Your task to perform on an android device: toggle priority inbox in the gmail app Image 0: 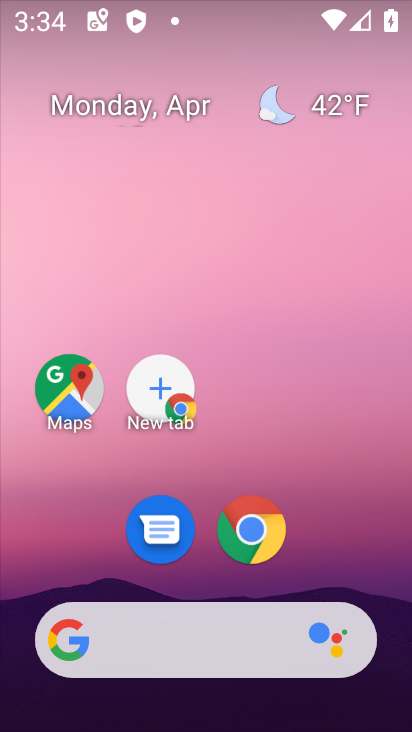
Step 0: drag from (234, 516) to (310, 134)
Your task to perform on an android device: toggle priority inbox in the gmail app Image 1: 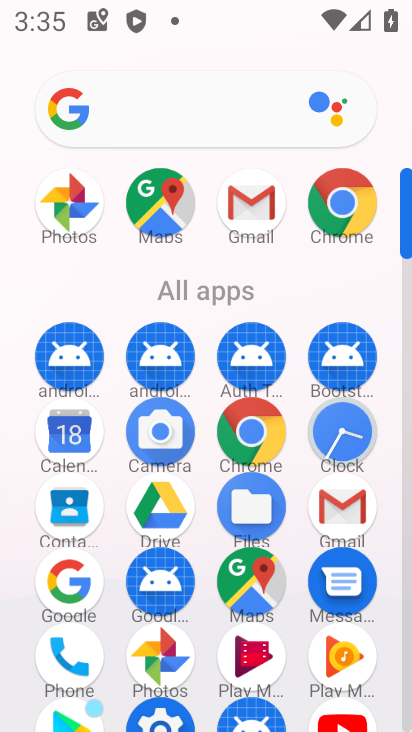
Step 1: click (249, 198)
Your task to perform on an android device: toggle priority inbox in the gmail app Image 2: 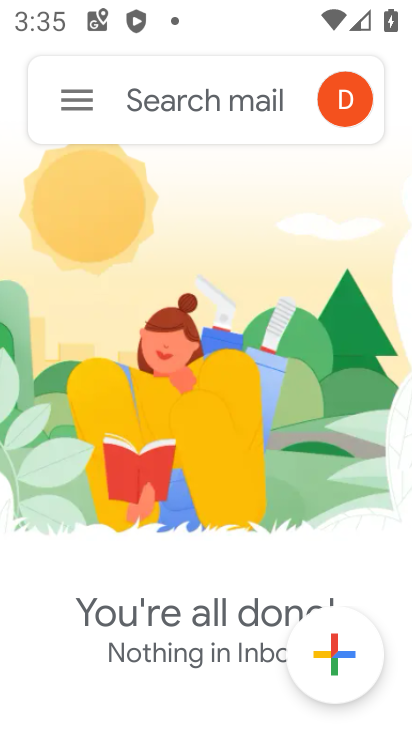
Step 2: click (79, 100)
Your task to perform on an android device: toggle priority inbox in the gmail app Image 3: 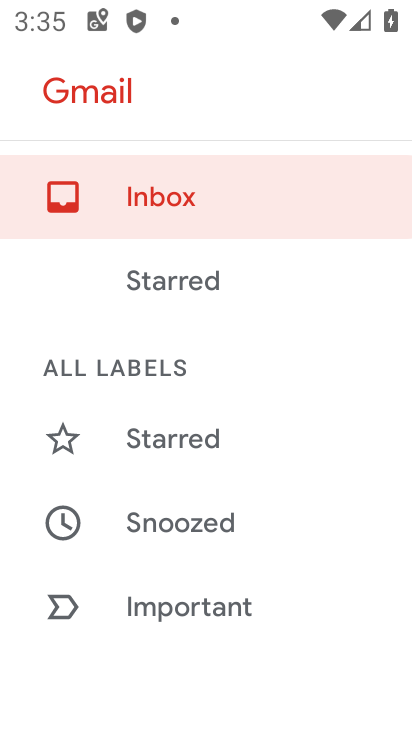
Step 3: drag from (182, 587) to (278, 78)
Your task to perform on an android device: toggle priority inbox in the gmail app Image 4: 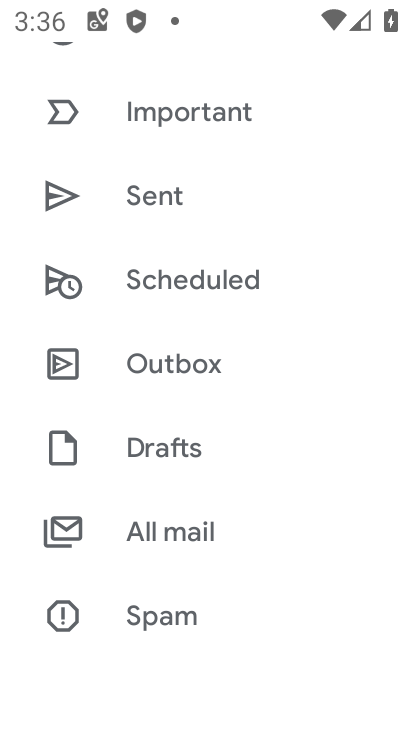
Step 4: drag from (207, 651) to (322, 62)
Your task to perform on an android device: toggle priority inbox in the gmail app Image 5: 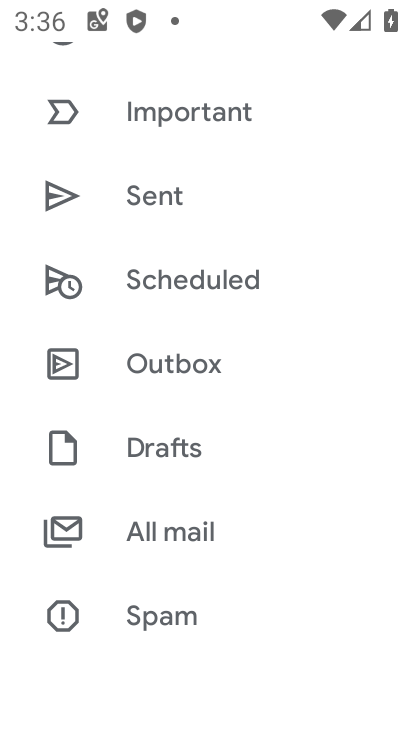
Step 5: drag from (152, 571) to (183, 82)
Your task to perform on an android device: toggle priority inbox in the gmail app Image 6: 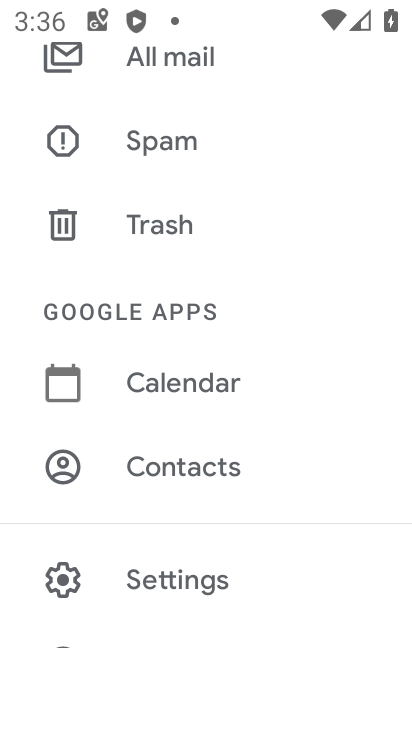
Step 6: click (174, 582)
Your task to perform on an android device: toggle priority inbox in the gmail app Image 7: 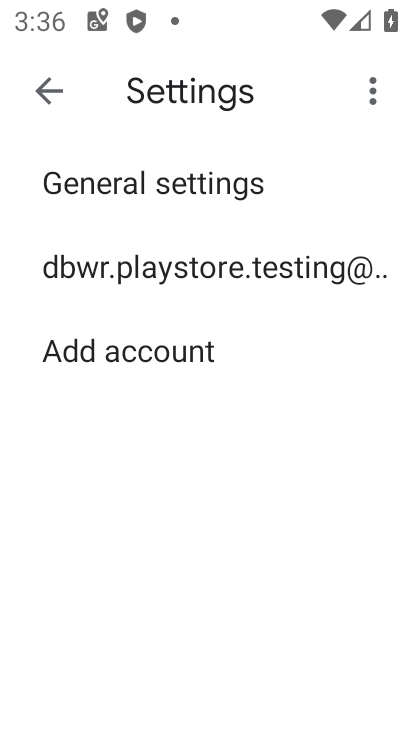
Step 7: click (172, 246)
Your task to perform on an android device: toggle priority inbox in the gmail app Image 8: 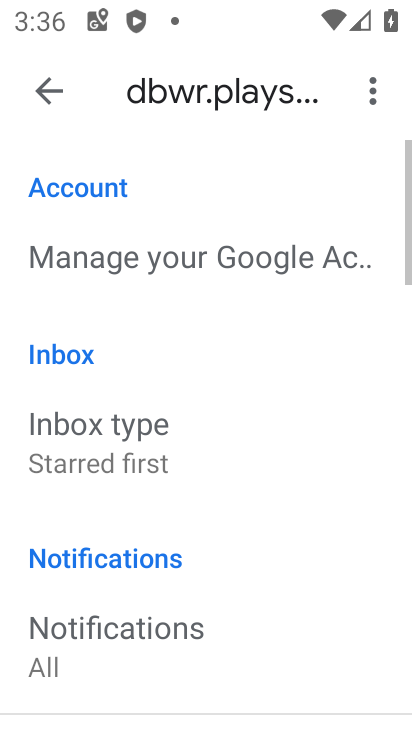
Step 8: drag from (153, 546) to (259, 161)
Your task to perform on an android device: toggle priority inbox in the gmail app Image 9: 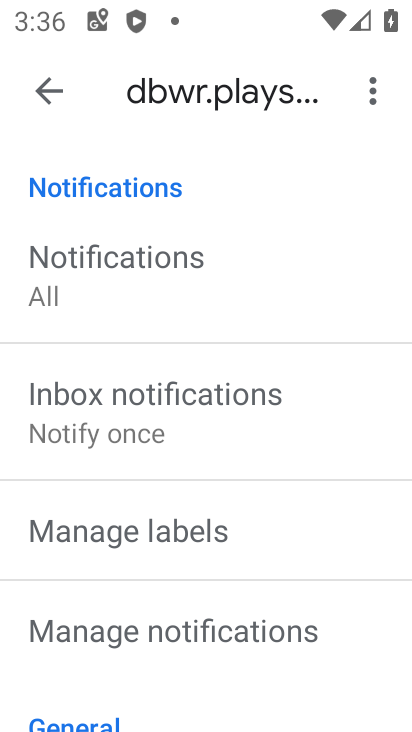
Step 9: drag from (178, 589) to (305, 180)
Your task to perform on an android device: toggle priority inbox in the gmail app Image 10: 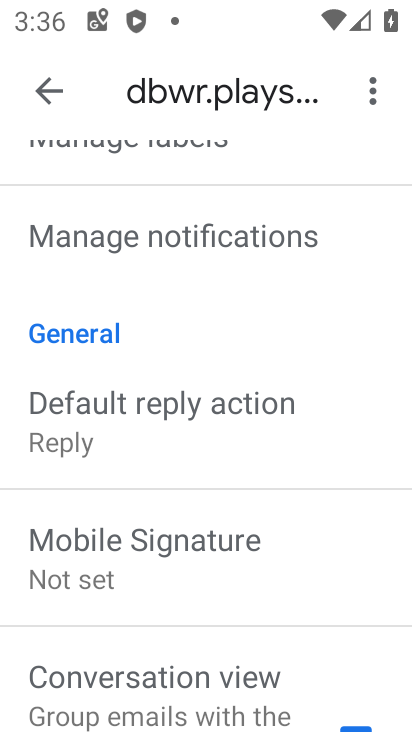
Step 10: drag from (166, 521) to (261, 180)
Your task to perform on an android device: toggle priority inbox in the gmail app Image 11: 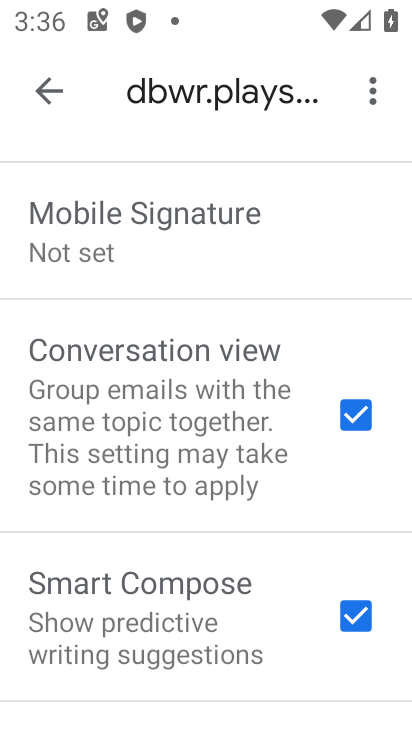
Step 11: drag from (154, 629) to (310, 142)
Your task to perform on an android device: toggle priority inbox in the gmail app Image 12: 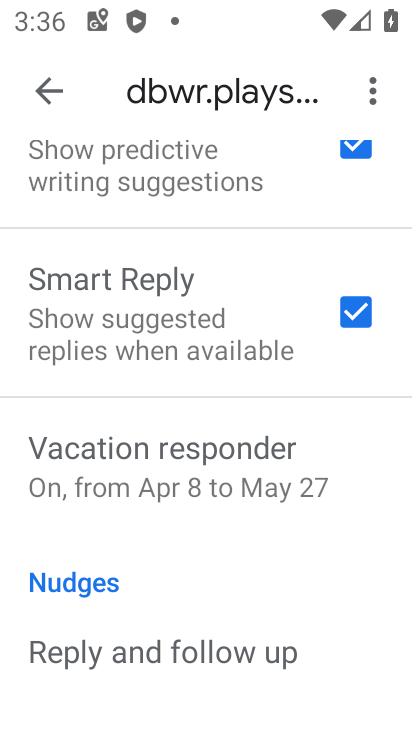
Step 12: drag from (187, 621) to (280, 201)
Your task to perform on an android device: toggle priority inbox in the gmail app Image 13: 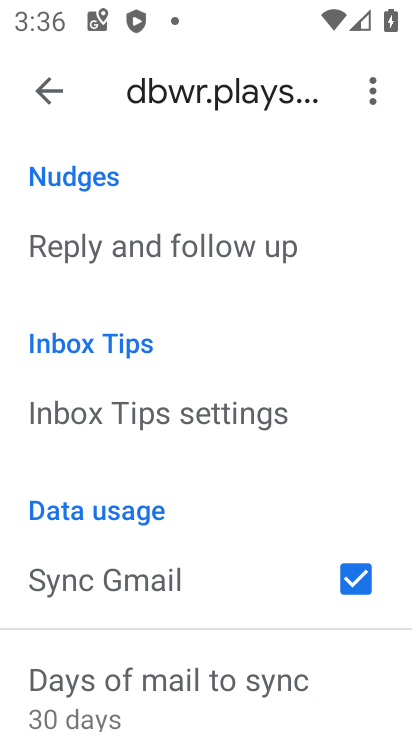
Step 13: drag from (164, 235) to (102, 730)
Your task to perform on an android device: toggle priority inbox in the gmail app Image 14: 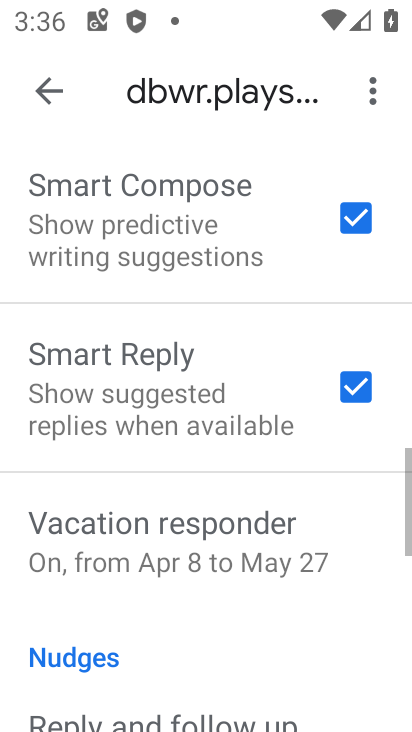
Step 14: drag from (157, 240) to (111, 712)
Your task to perform on an android device: toggle priority inbox in the gmail app Image 15: 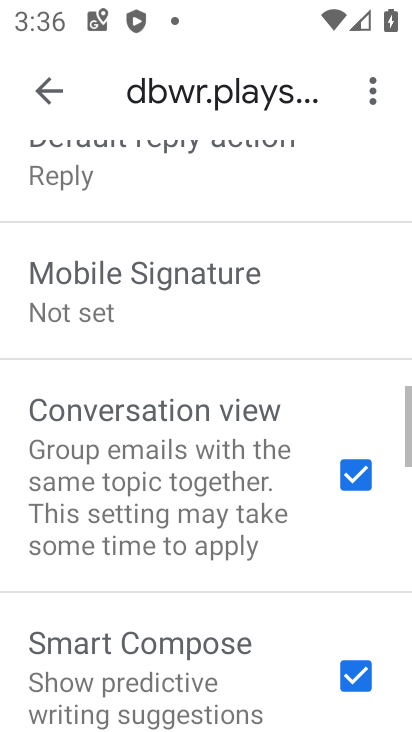
Step 15: drag from (141, 254) to (85, 723)
Your task to perform on an android device: toggle priority inbox in the gmail app Image 16: 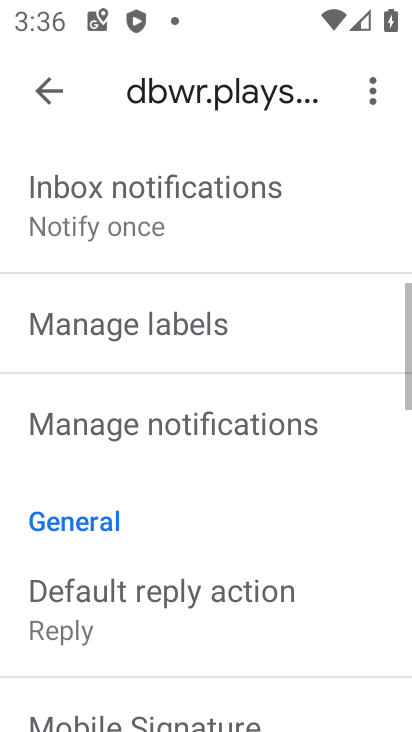
Step 16: drag from (141, 266) to (81, 711)
Your task to perform on an android device: toggle priority inbox in the gmail app Image 17: 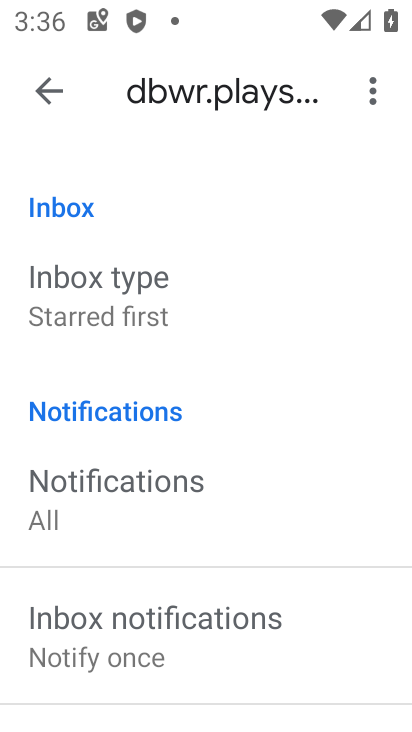
Step 17: click (119, 301)
Your task to perform on an android device: toggle priority inbox in the gmail app Image 18: 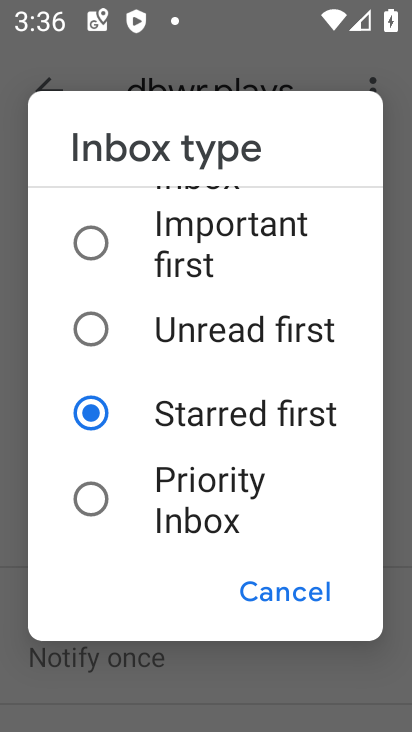
Step 18: click (95, 489)
Your task to perform on an android device: toggle priority inbox in the gmail app Image 19: 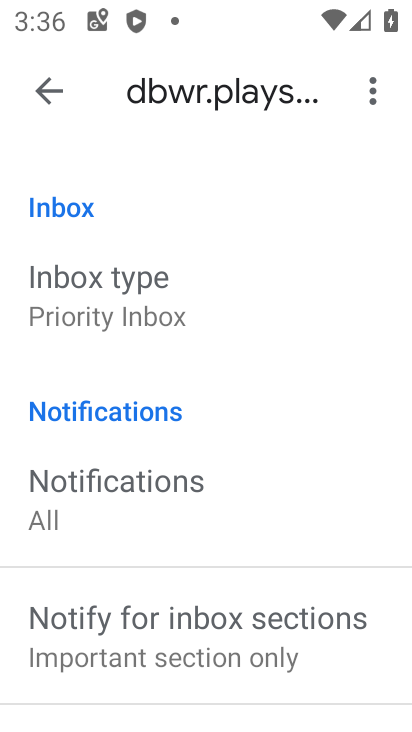
Step 19: task complete